Your task to perform on an android device: turn on javascript in the chrome app Image 0: 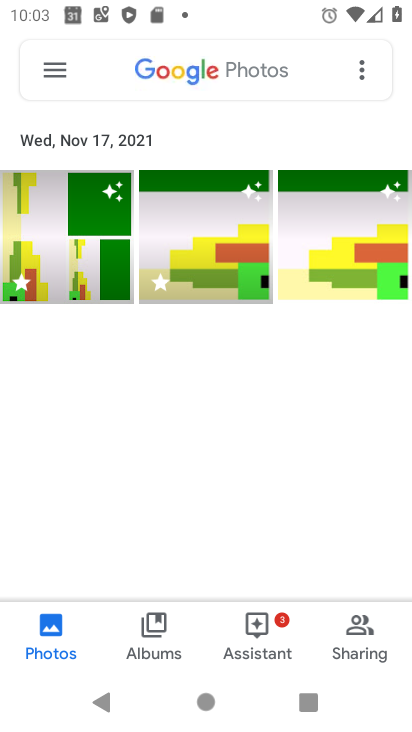
Step 0: press home button
Your task to perform on an android device: turn on javascript in the chrome app Image 1: 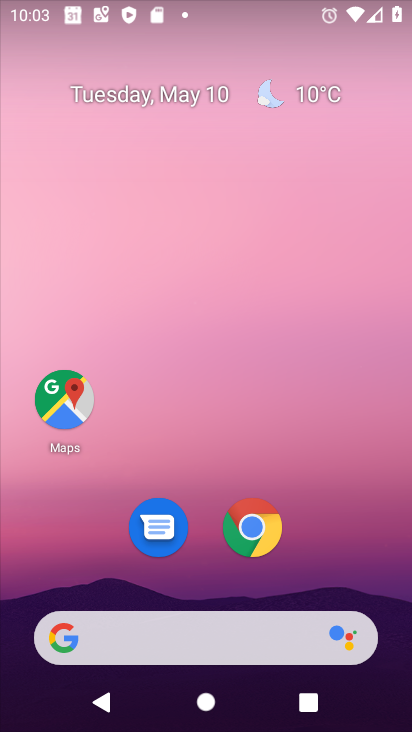
Step 1: click (253, 535)
Your task to perform on an android device: turn on javascript in the chrome app Image 2: 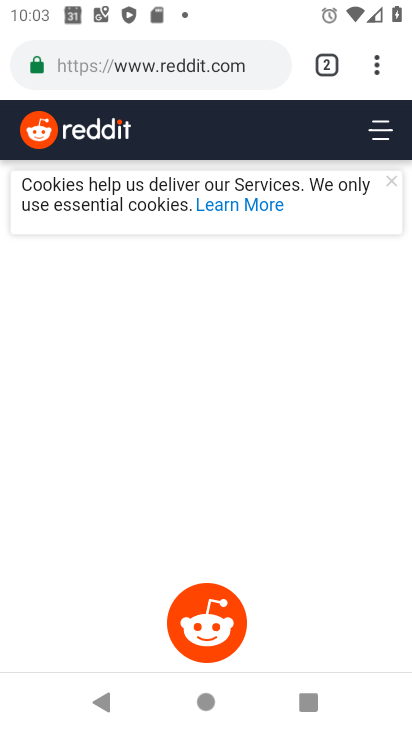
Step 2: click (374, 67)
Your task to perform on an android device: turn on javascript in the chrome app Image 3: 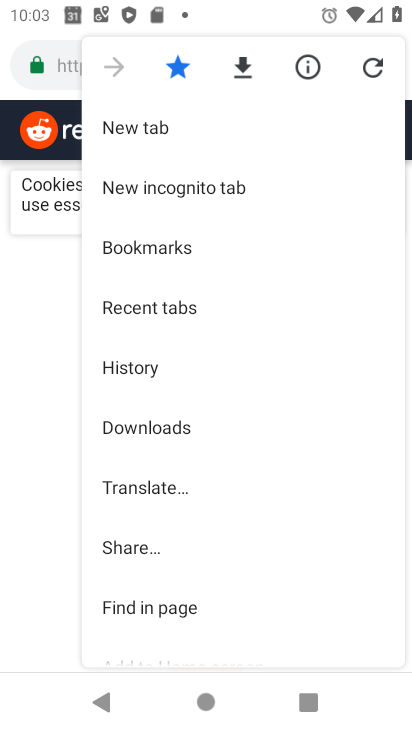
Step 3: drag from (179, 628) to (179, 325)
Your task to perform on an android device: turn on javascript in the chrome app Image 4: 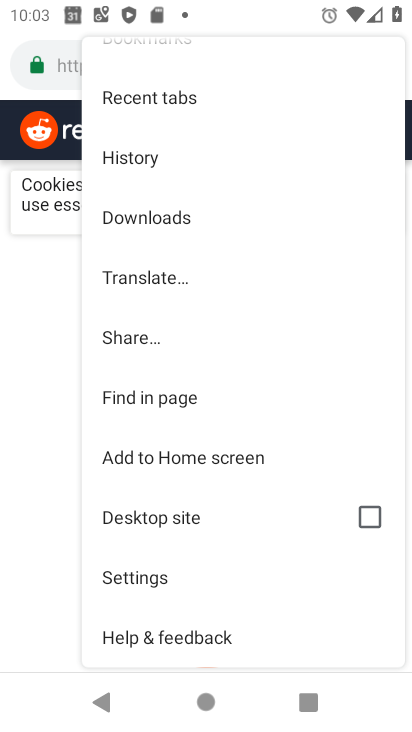
Step 4: click (145, 573)
Your task to perform on an android device: turn on javascript in the chrome app Image 5: 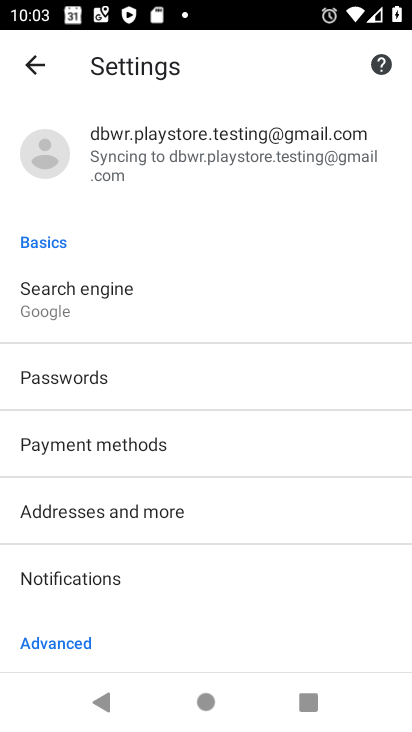
Step 5: drag from (104, 600) to (110, 288)
Your task to perform on an android device: turn on javascript in the chrome app Image 6: 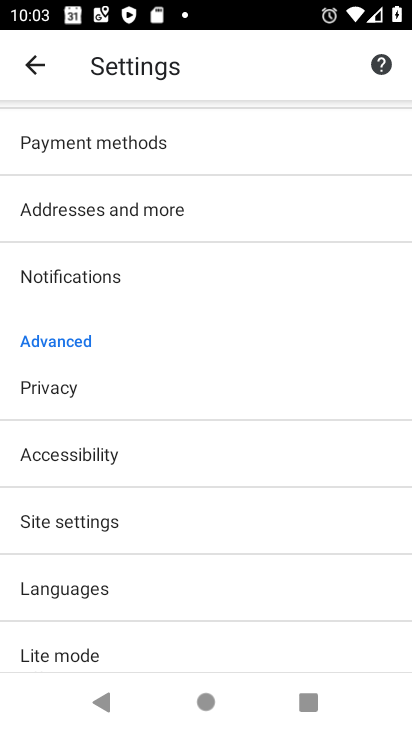
Step 6: click (67, 521)
Your task to perform on an android device: turn on javascript in the chrome app Image 7: 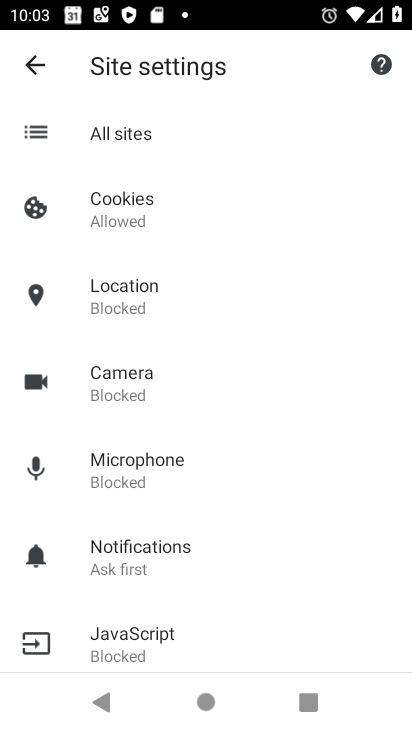
Step 7: click (128, 639)
Your task to perform on an android device: turn on javascript in the chrome app Image 8: 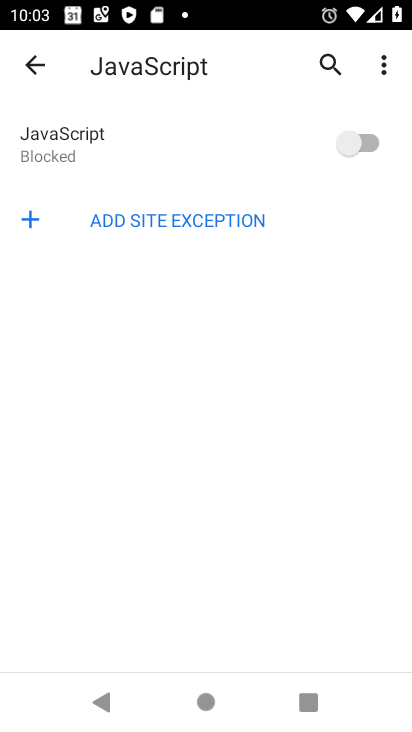
Step 8: click (373, 138)
Your task to perform on an android device: turn on javascript in the chrome app Image 9: 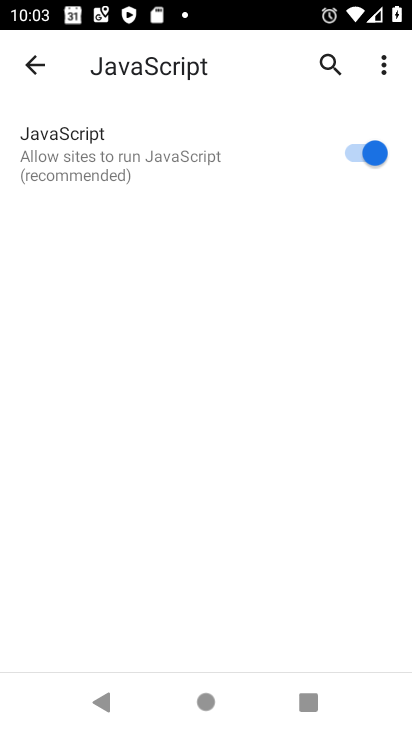
Step 9: task complete